Your task to perform on an android device: open app "Adobe Acrobat Reader" (install if not already installed) Image 0: 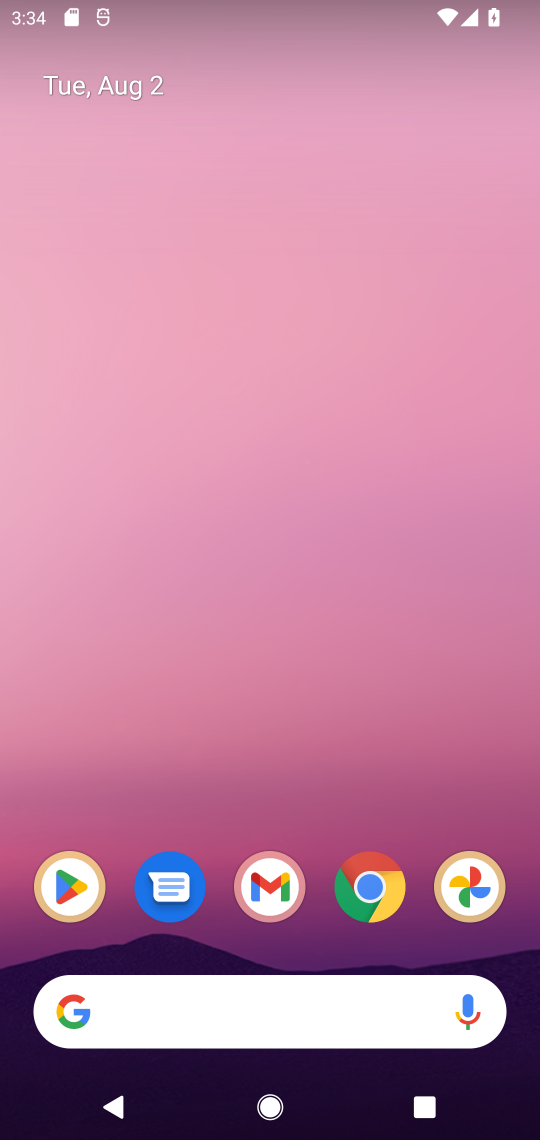
Step 0: click (46, 907)
Your task to perform on an android device: open app "Adobe Acrobat Reader" (install if not already installed) Image 1: 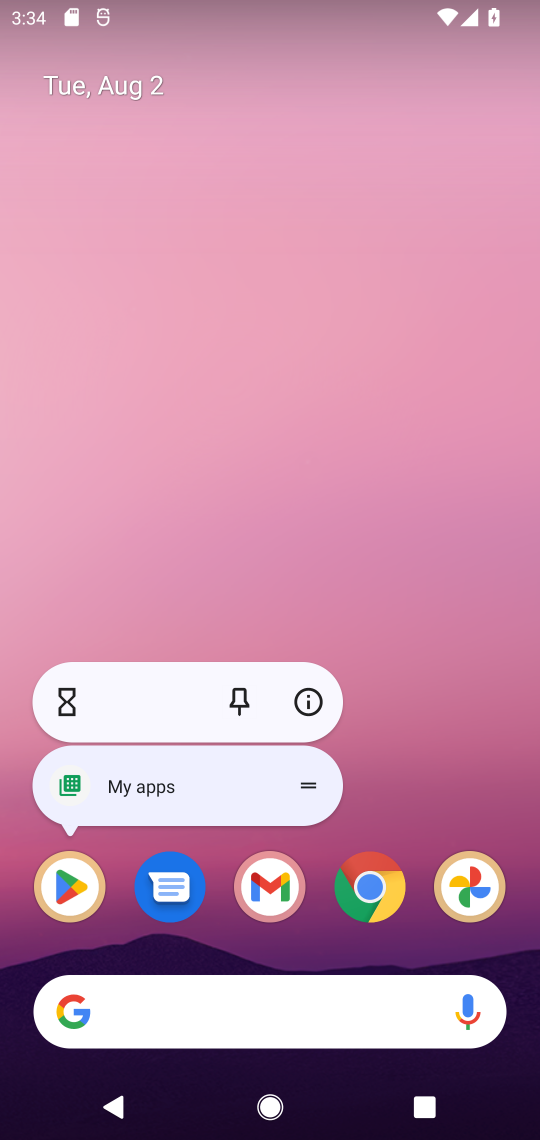
Step 1: click (49, 890)
Your task to perform on an android device: open app "Adobe Acrobat Reader" (install if not already installed) Image 2: 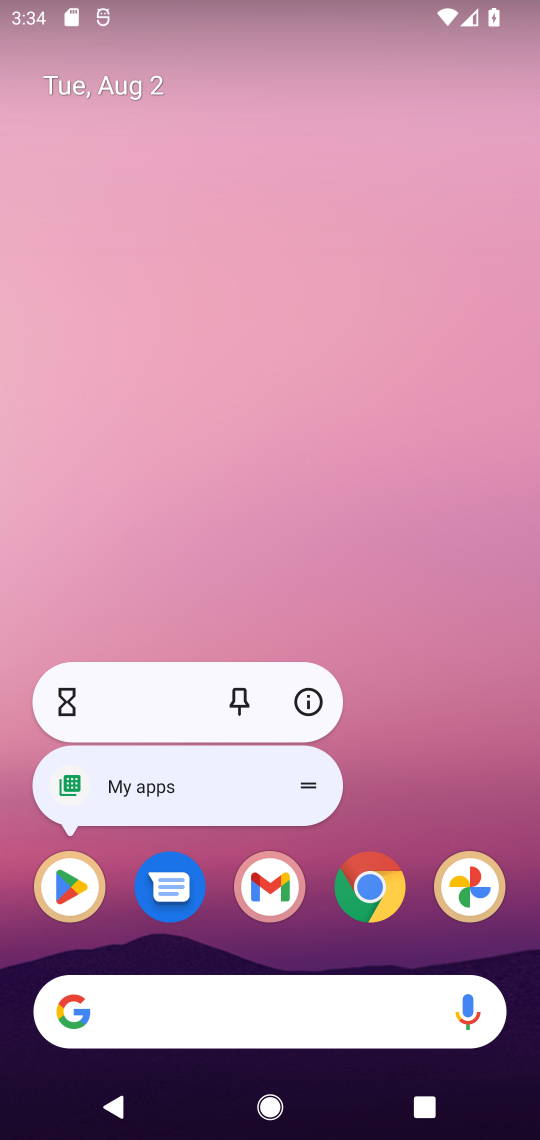
Step 2: click (52, 885)
Your task to perform on an android device: open app "Adobe Acrobat Reader" (install if not already installed) Image 3: 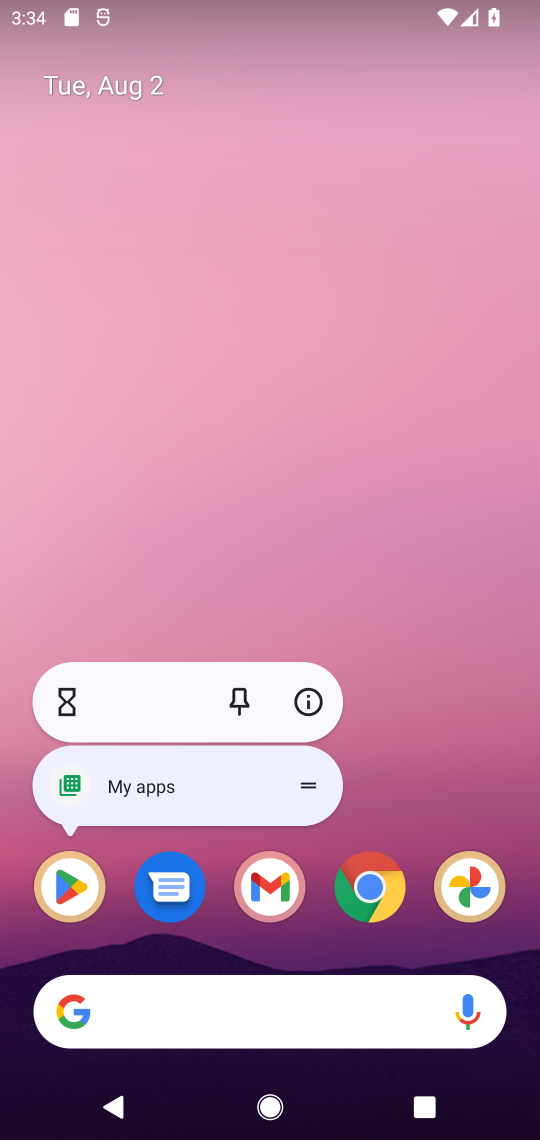
Step 3: click (54, 894)
Your task to perform on an android device: open app "Adobe Acrobat Reader" (install if not already installed) Image 4: 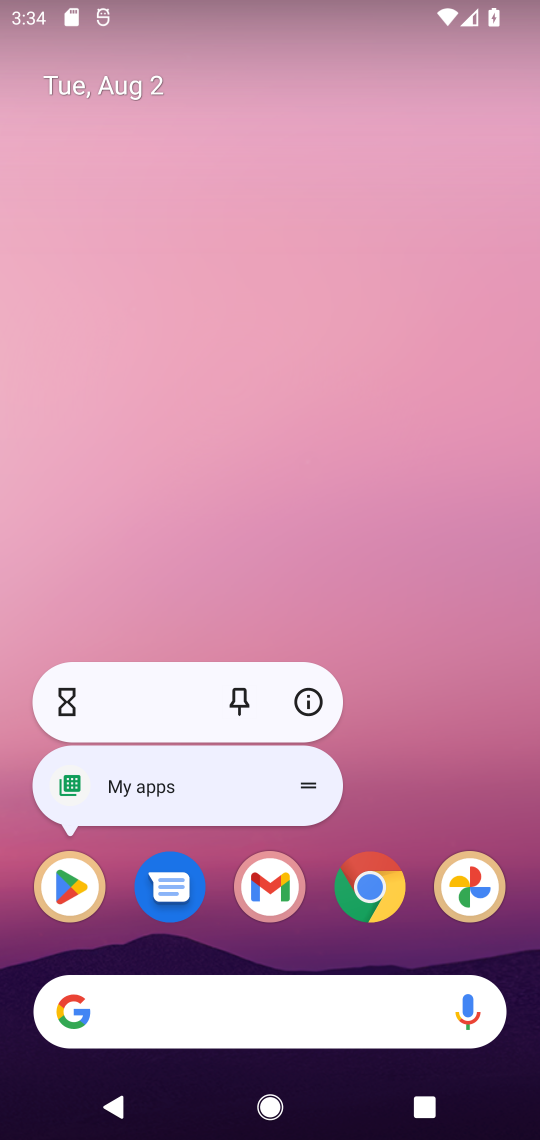
Step 4: click (83, 894)
Your task to perform on an android device: open app "Adobe Acrobat Reader" (install if not already installed) Image 5: 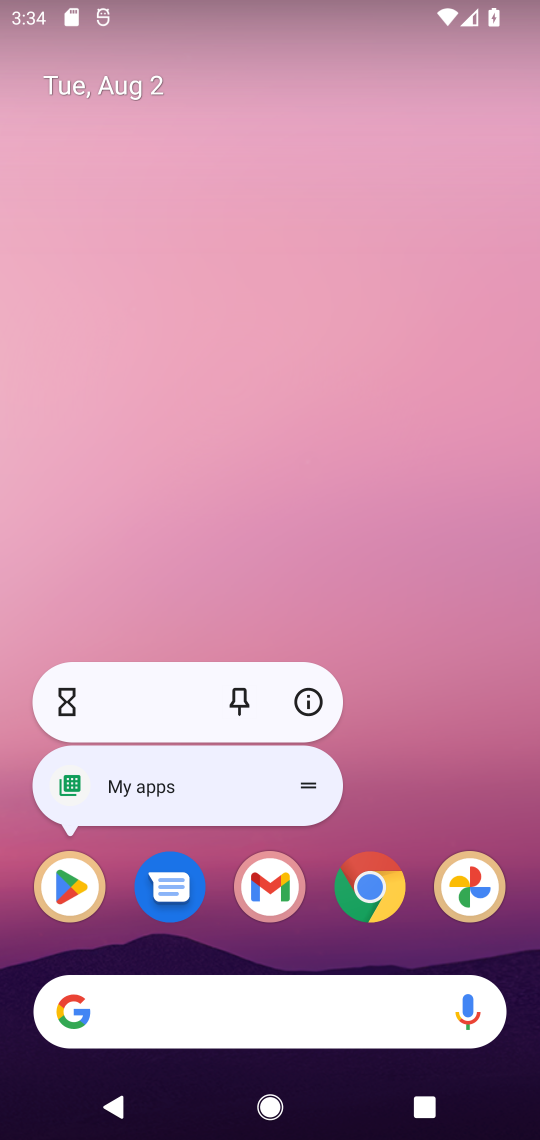
Step 5: click (61, 884)
Your task to perform on an android device: open app "Adobe Acrobat Reader" (install if not already installed) Image 6: 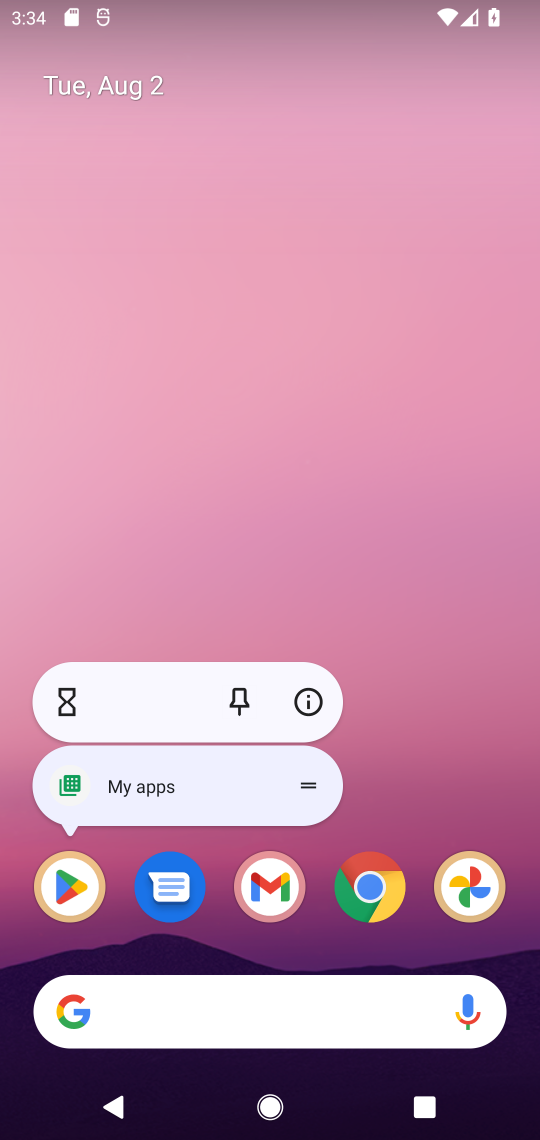
Step 6: task complete